Your task to perform on an android device: toggle data saver in the chrome app Image 0: 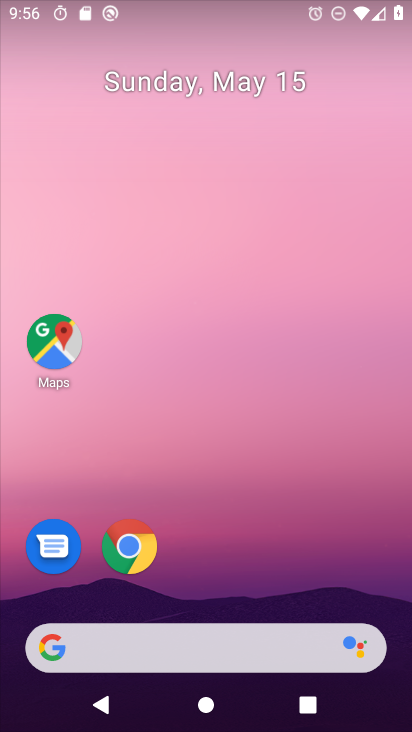
Step 0: click (128, 509)
Your task to perform on an android device: toggle data saver in the chrome app Image 1: 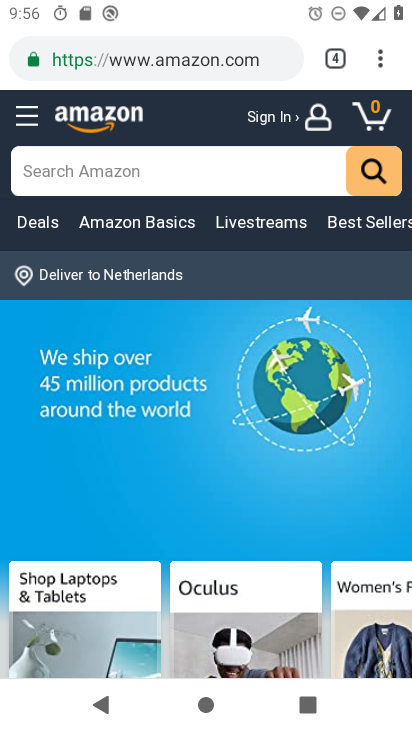
Step 1: click (376, 54)
Your task to perform on an android device: toggle data saver in the chrome app Image 2: 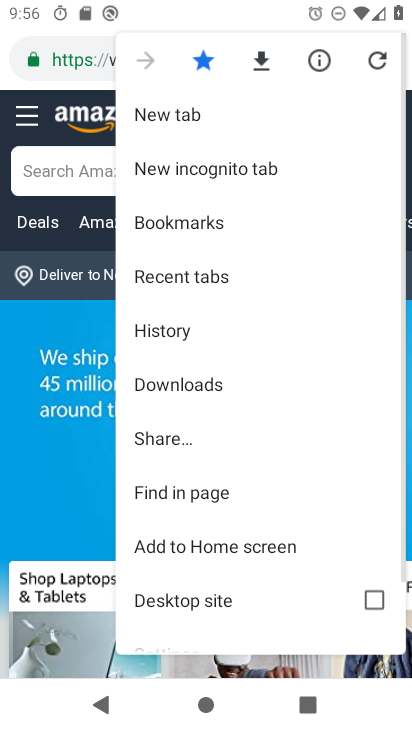
Step 2: drag from (260, 407) to (268, 305)
Your task to perform on an android device: toggle data saver in the chrome app Image 3: 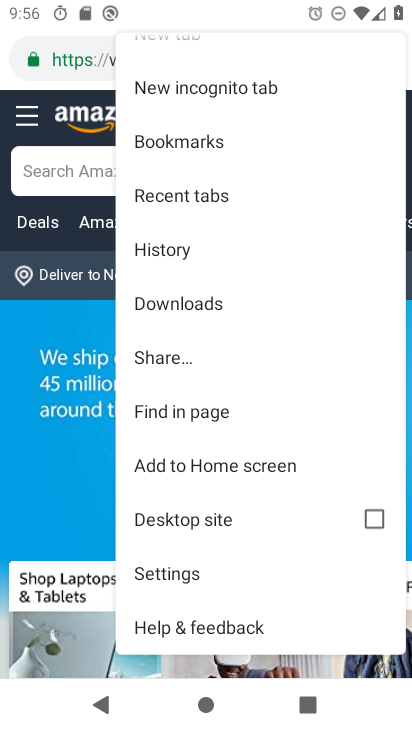
Step 3: click (203, 580)
Your task to perform on an android device: toggle data saver in the chrome app Image 4: 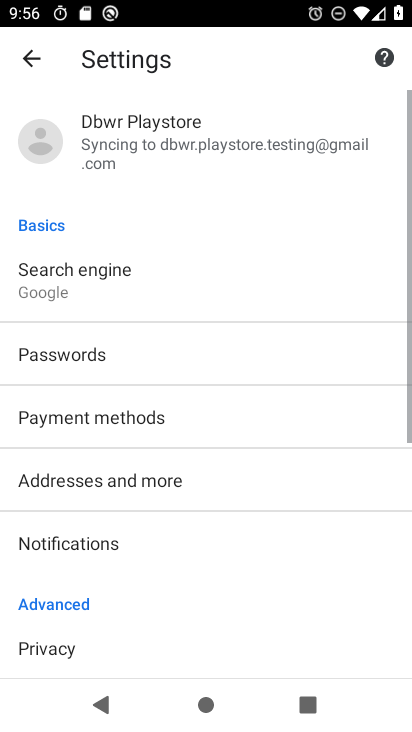
Step 4: drag from (233, 550) to (278, 180)
Your task to perform on an android device: toggle data saver in the chrome app Image 5: 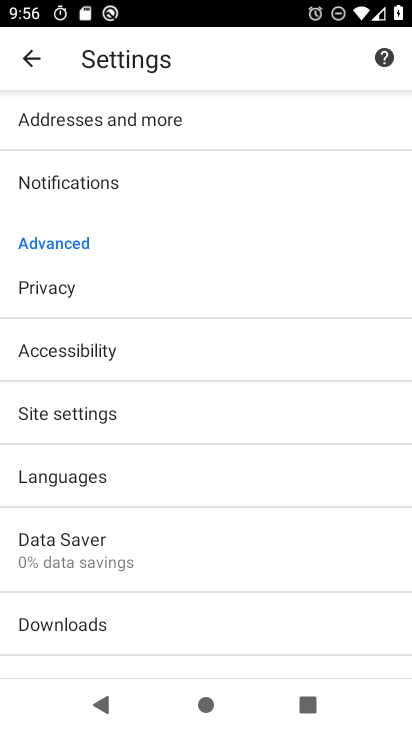
Step 5: click (150, 552)
Your task to perform on an android device: toggle data saver in the chrome app Image 6: 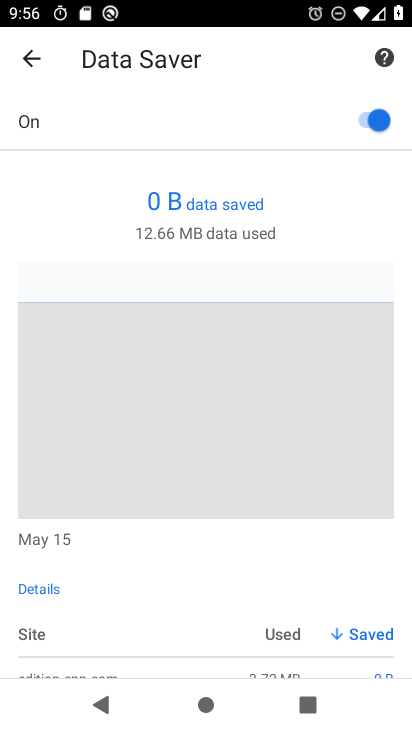
Step 6: click (357, 111)
Your task to perform on an android device: toggle data saver in the chrome app Image 7: 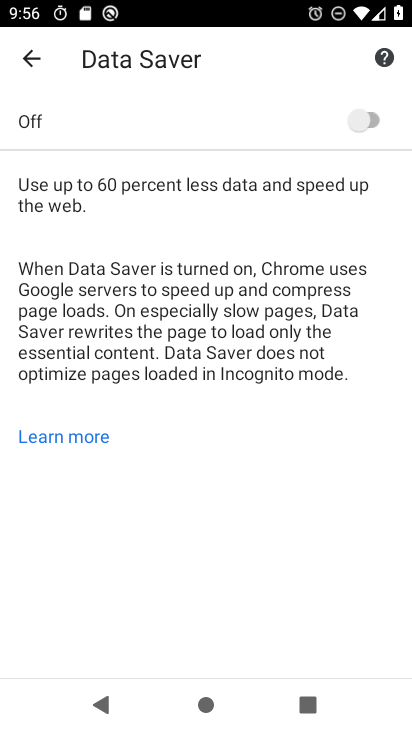
Step 7: task complete